Your task to perform on an android device: Go to Yahoo.com Image 0: 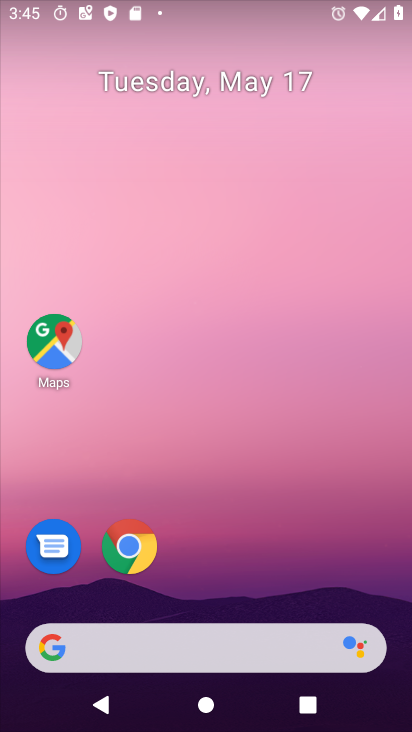
Step 0: drag from (283, 614) to (279, 45)
Your task to perform on an android device: Go to Yahoo.com Image 1: 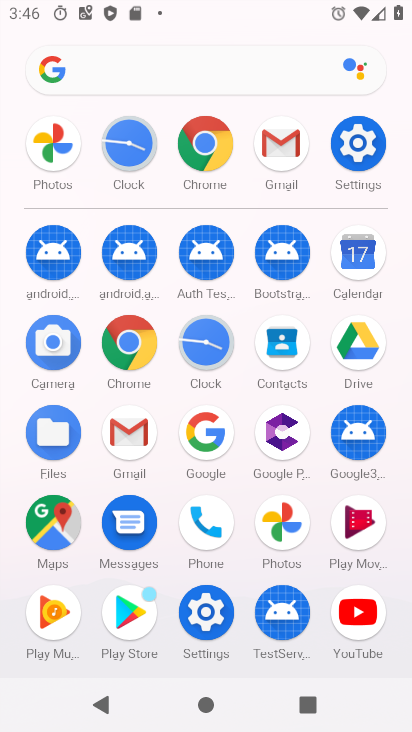
Step 1: click (221, 156)
Your task to perform on an android device: Go to Yahoo.com Image 2: 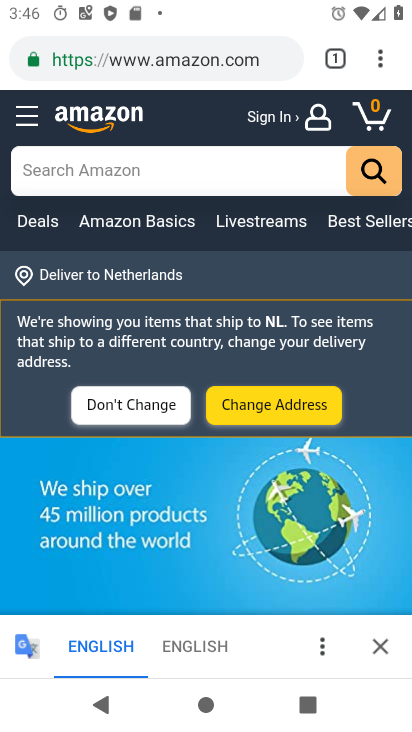
Step 2: click (217, 65)
Your task to perform on an android device: Go to Yahoo.com Image 3: 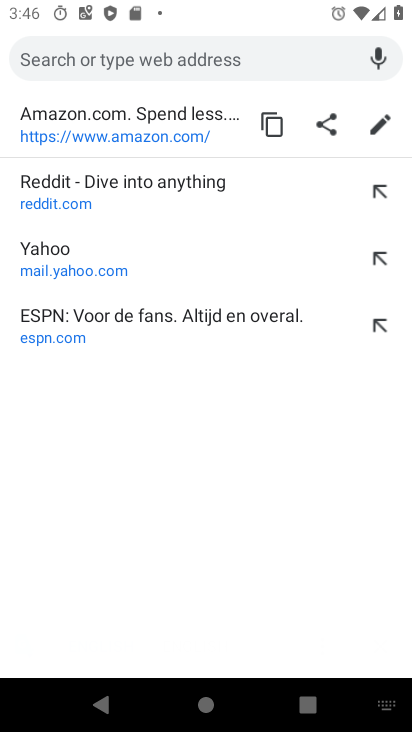
Step 3: type "yahoo"
Your task to perform on an android device: Go to Yahoo.com Image 4: 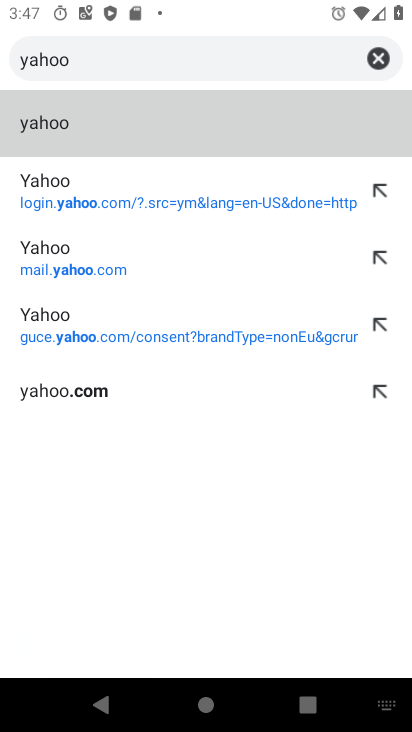
Step 4: click (164, 257)
Your task to perform on an android device: Go to Yahoo.com Image 5: 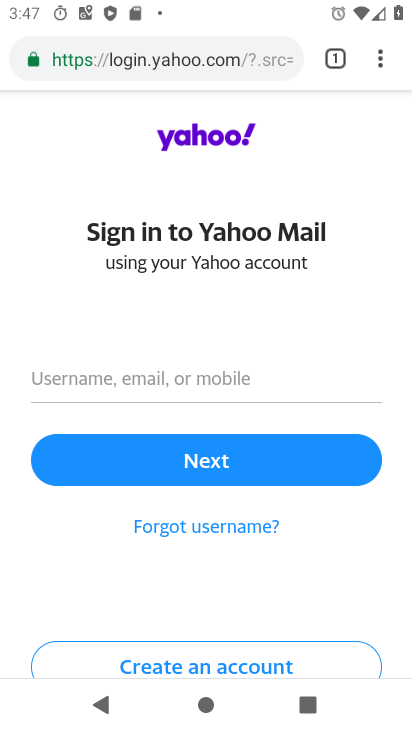
Step 5: task complete